Your task to perform on an android device: turn off picture-in-picture Image 0: 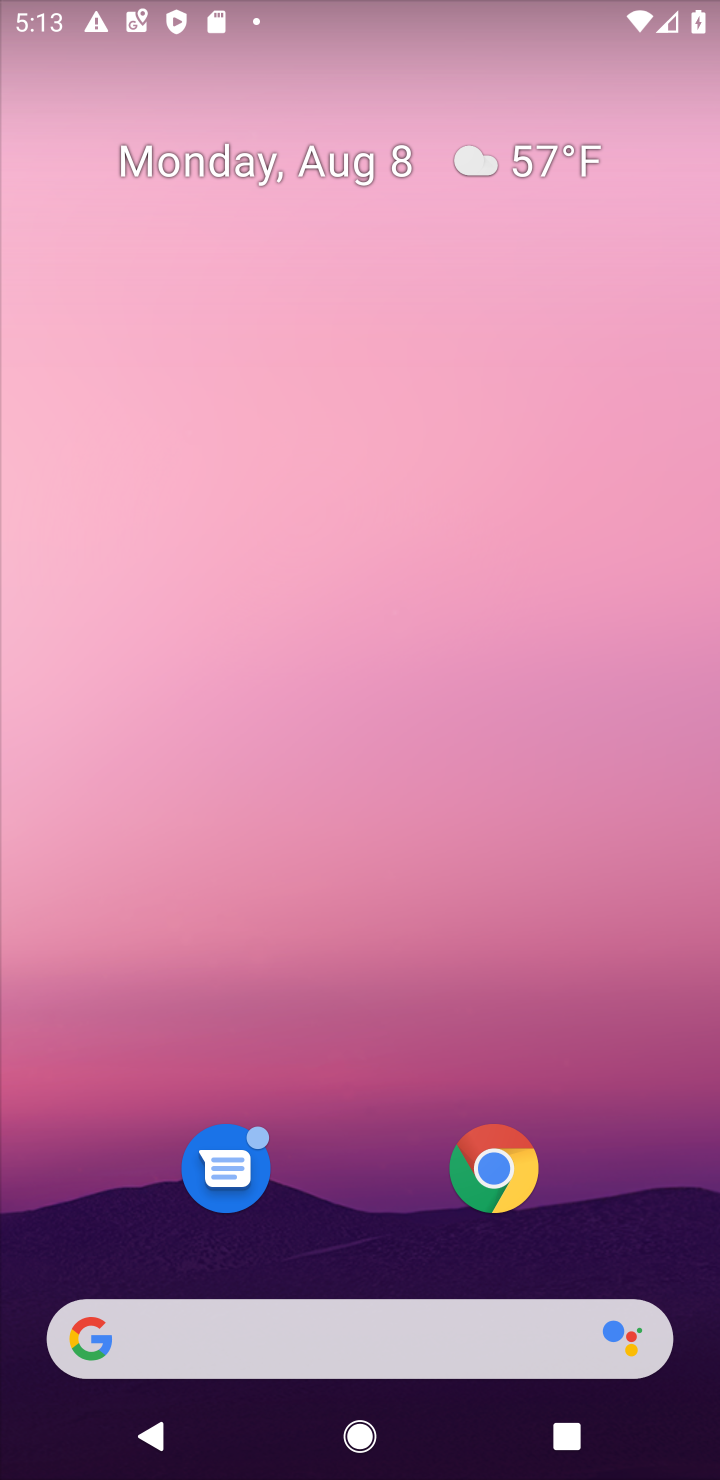
Step 0: click (496, 1172)
Your task to perform on an android device: turn off picture-in-picture Image 1: 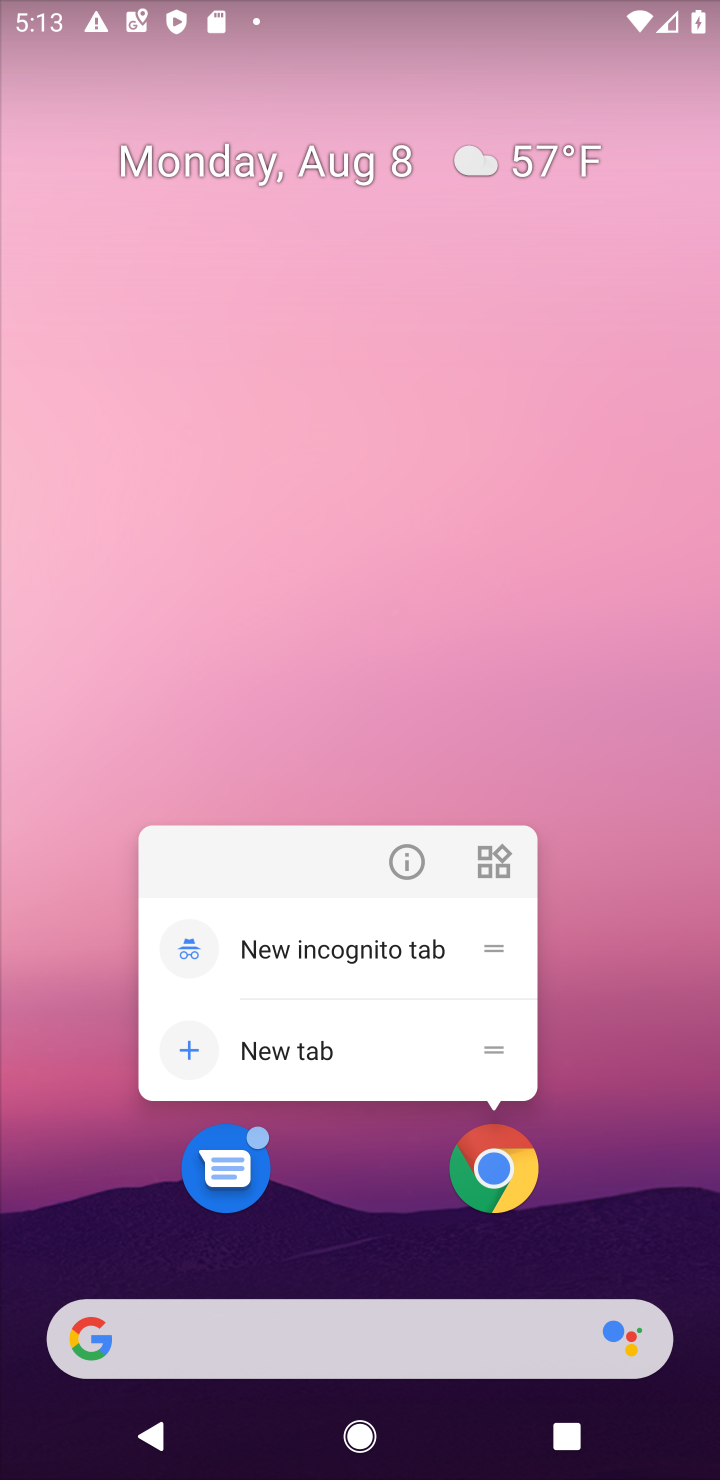
Step 1: click (400, 847)
Your task to perform on an android device: turn off picture-in-picture Image 2: 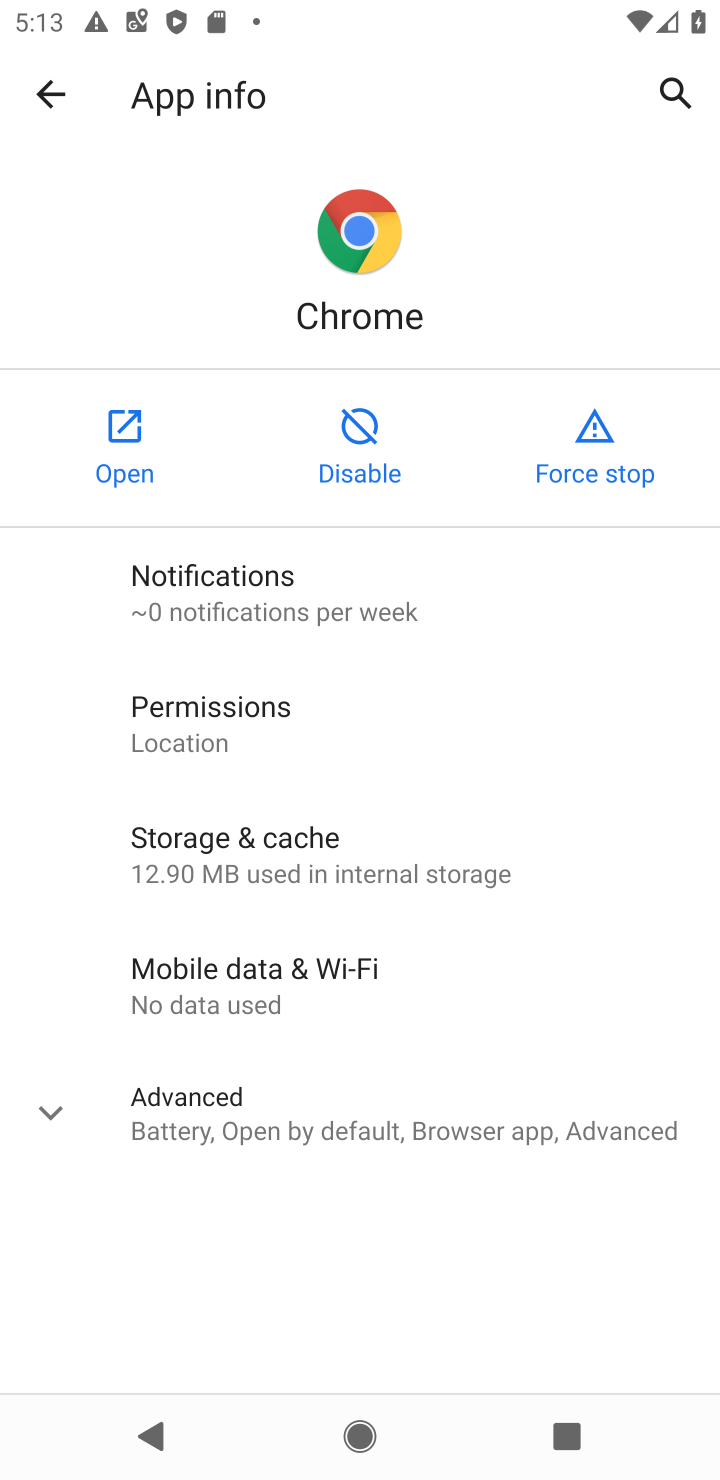
Step 2: click (187, 1122)
Your task to perform on an android device: turn off picture-in-picture Image 3: 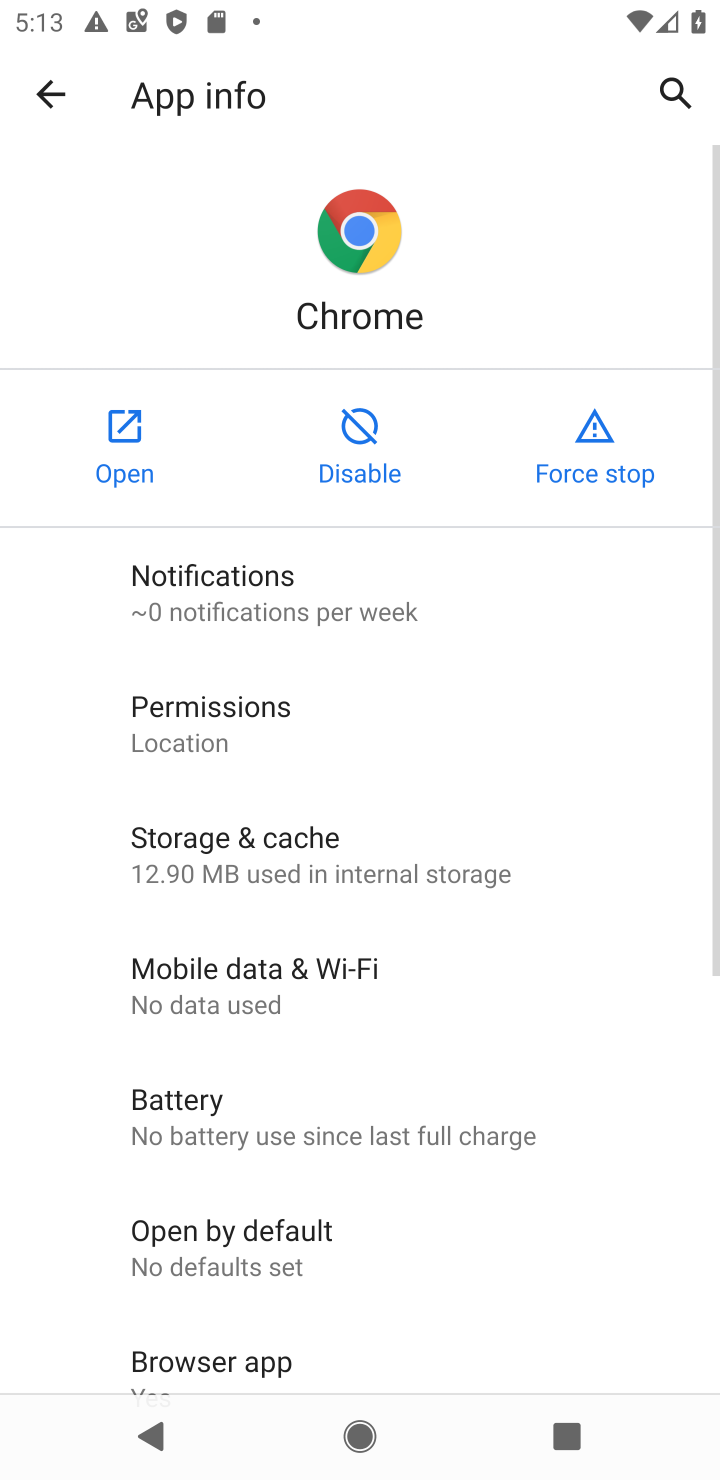
Step 3: drag from (278, 1317) to (282, 489)
Your task to perform on an android device: turn off picture-in-picture Image 4: 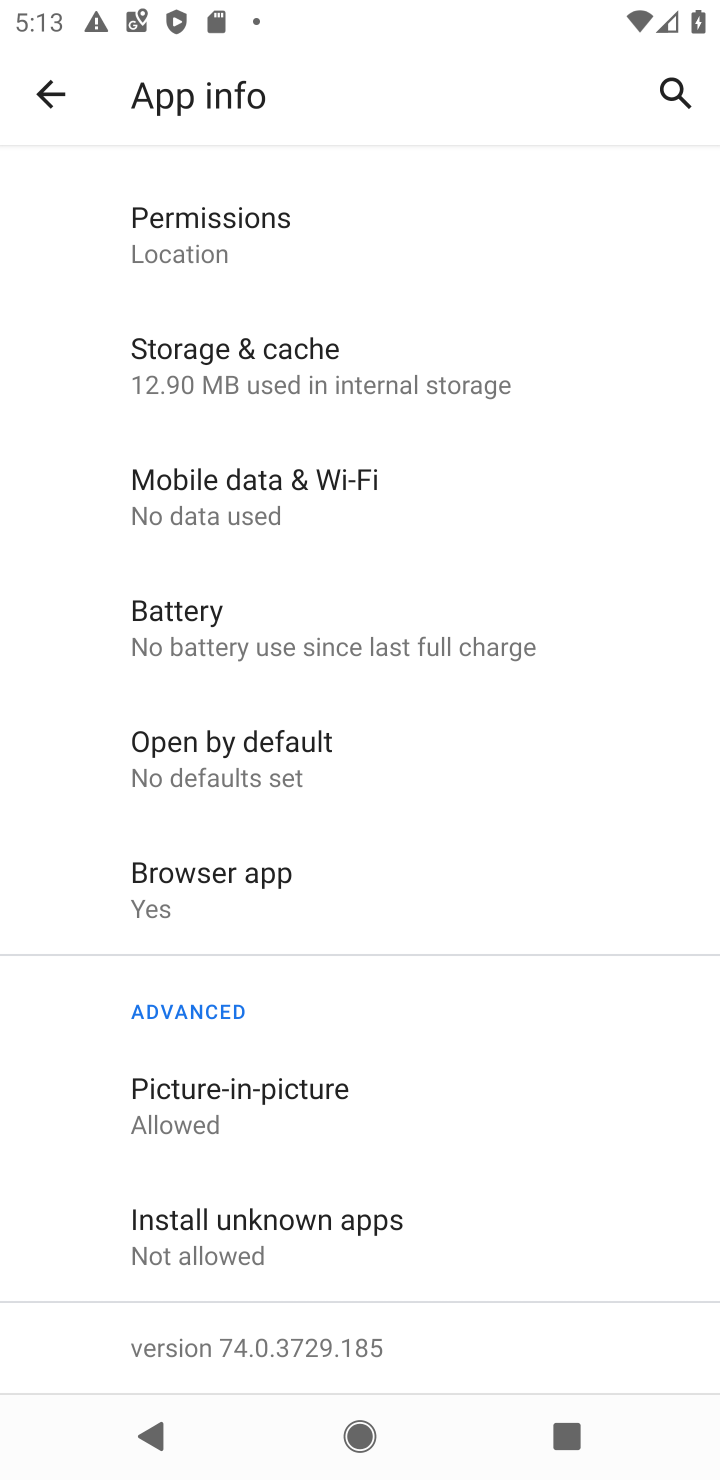
Step 4: click (269, 1112)
Your task to perform on an android device: turn off picture-in-picture Image 5: 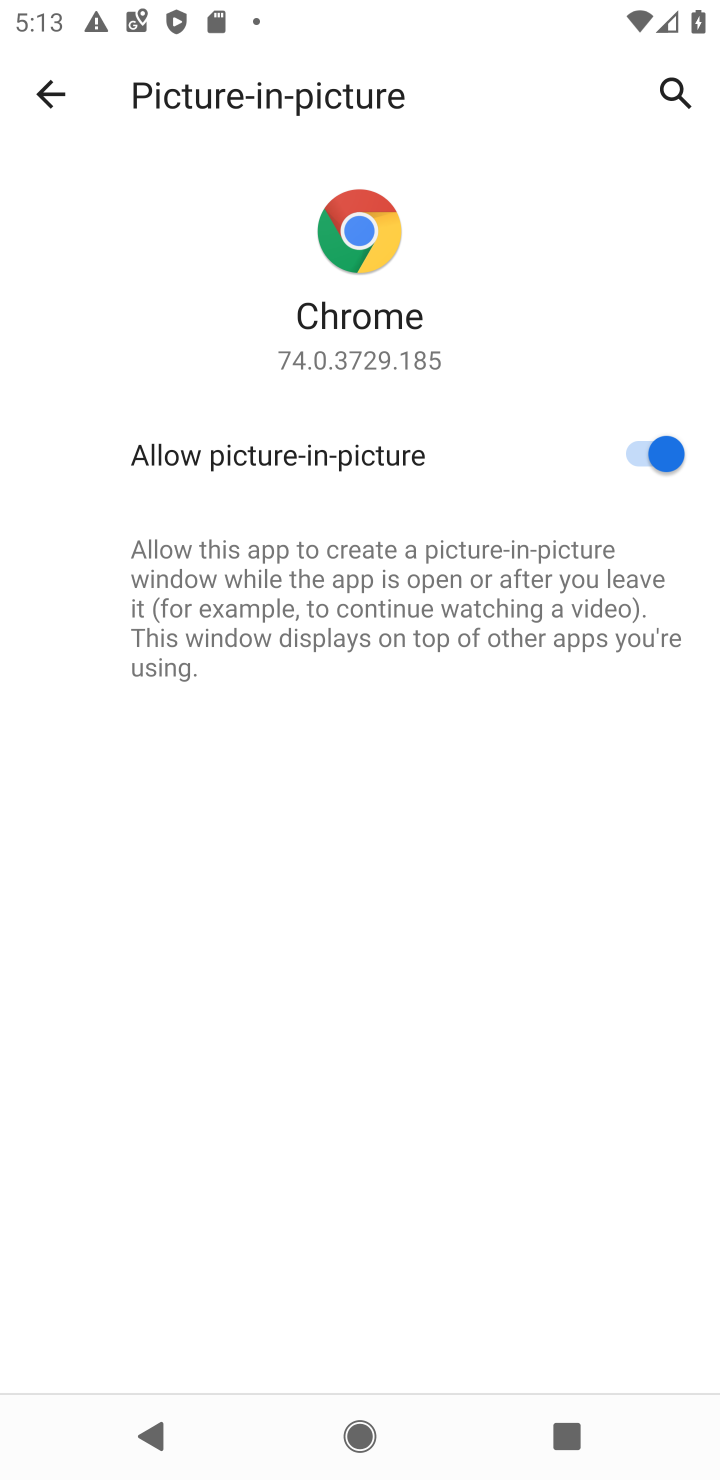
Step 5: click (672, 450)
Your task to perform on an android device: turn off picture-in-picture Image 6: 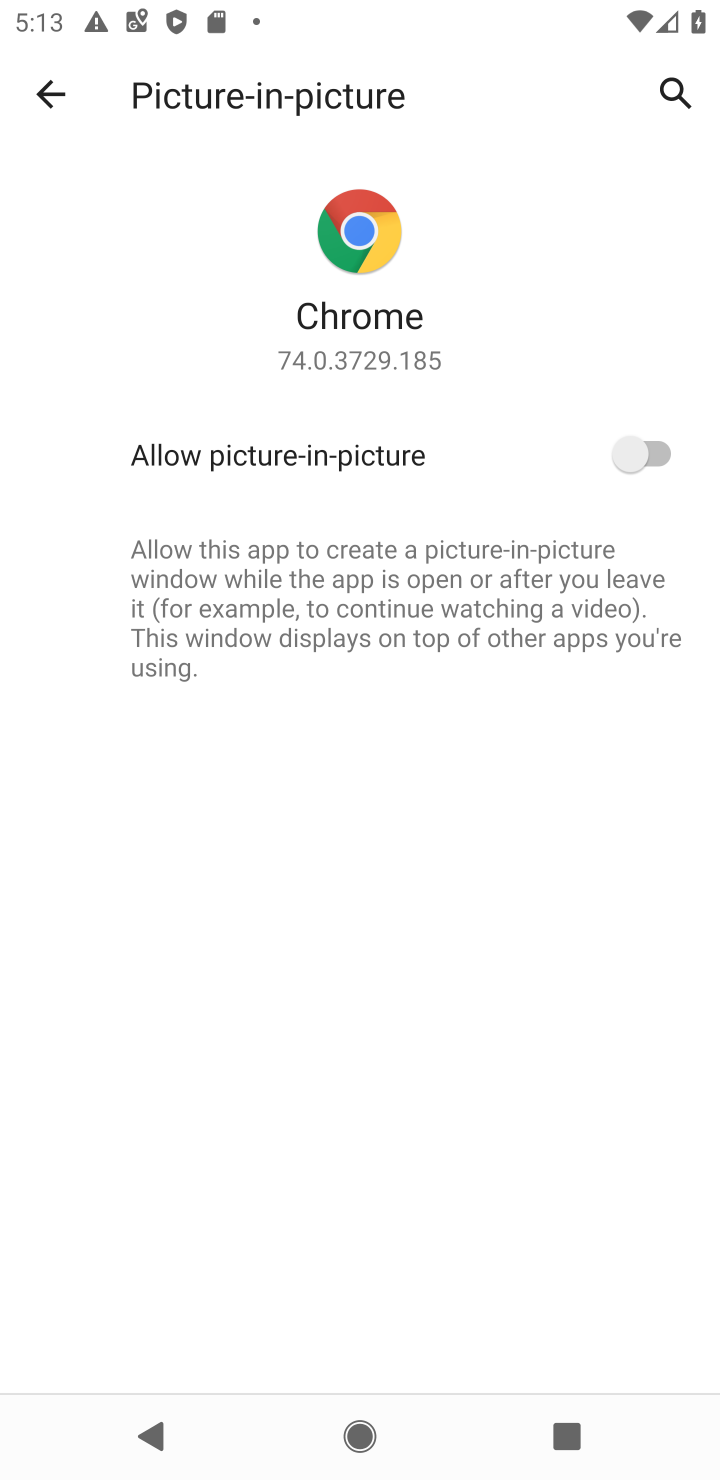
Step 6: task complete